Your task to perform on an android device: turn on the 12-hour format for clock Image 0: 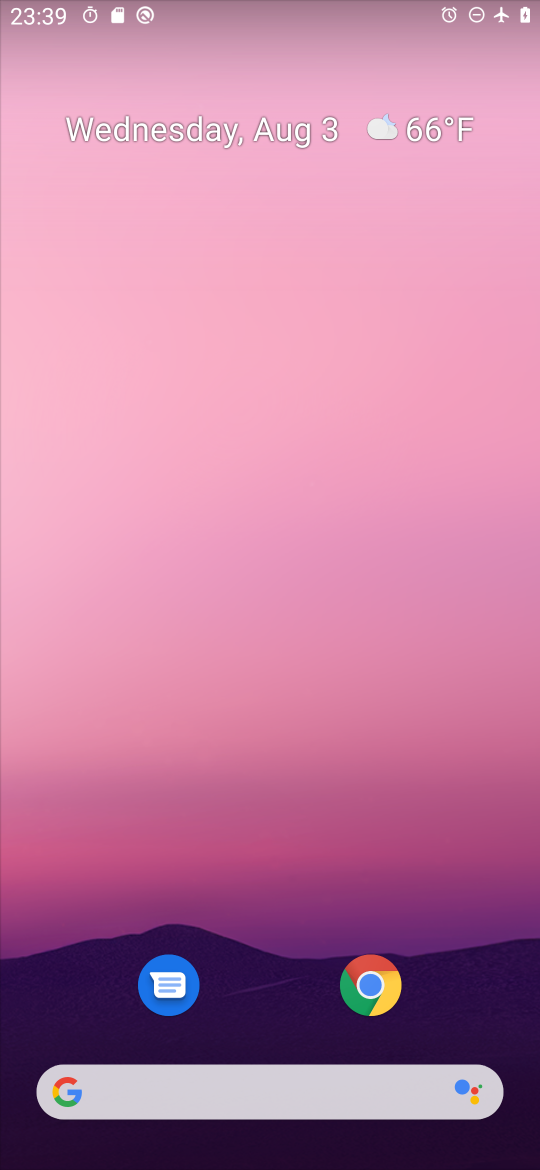
Step 0: drag from (285, 931) to (285, 314)
Your task to perform on an android device: turn on the 12-hour format for clock Image 1: 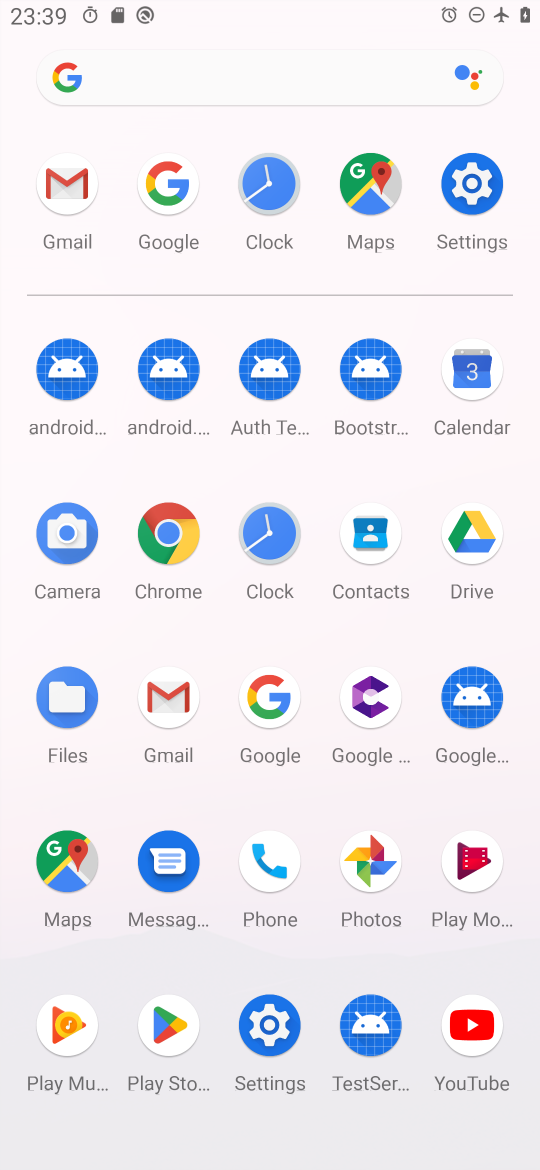
Step 1: click (281, 190)
Your task to perform on an android device: turn on the 12-hour format for clock Image 2: 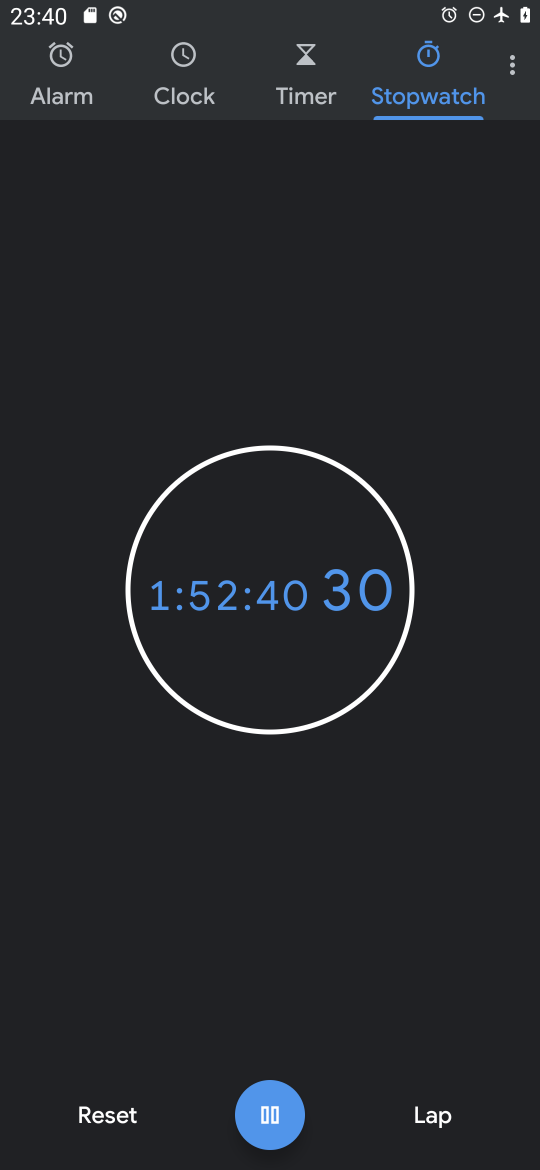
Step 2: click (500, 67)
Your task to perform on an android device: turn on the 12-hour format for clock Image 3: 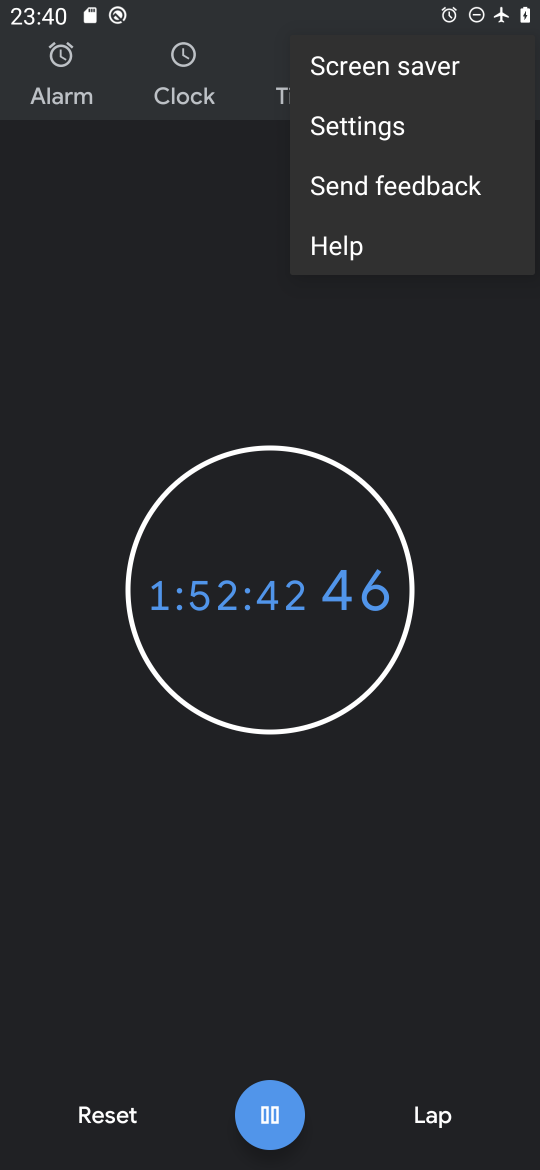
Step 3: click (355, 128)
Your task to perform on an android device: turn on the 12-hour format for clock Image 4: 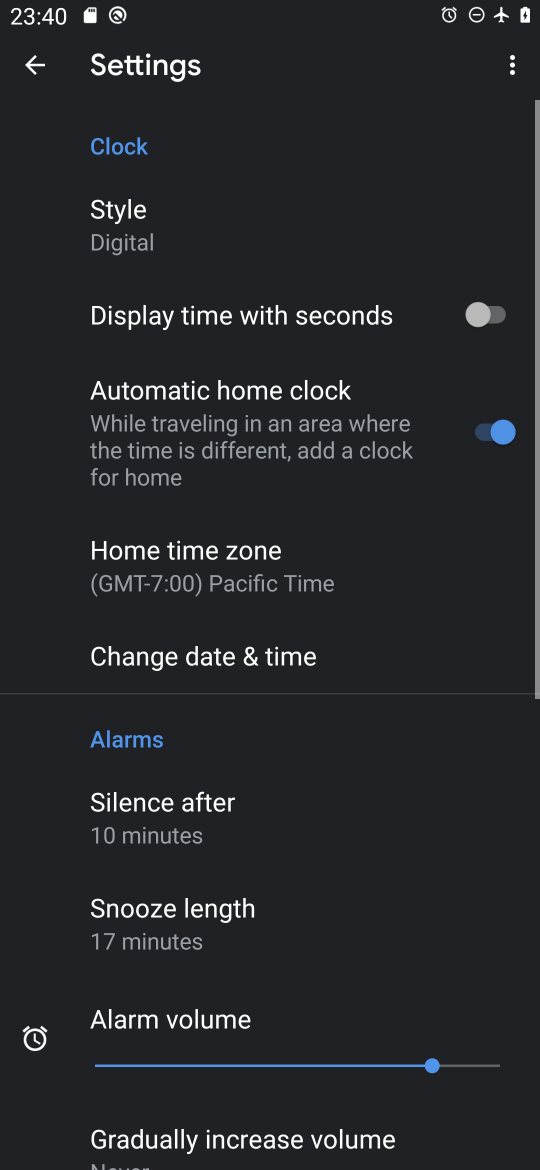
Step 4: click (207, 666)
Your task to perform on an android device: turn on the 12-hour format for clock Image 5: 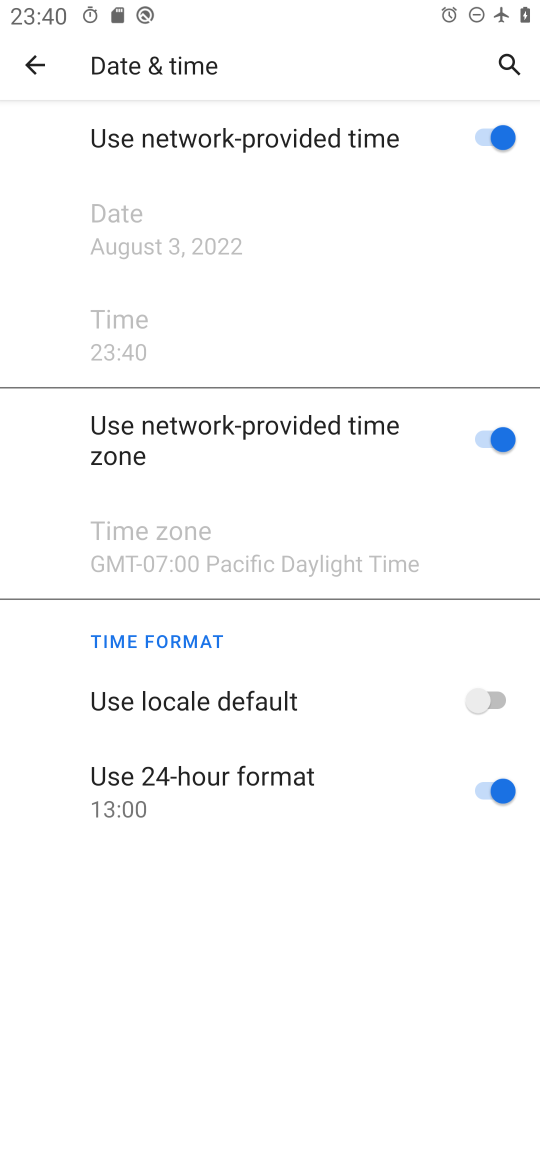
Step 5: task complete